Your task to perform on an android device: Open location settings Image 0: 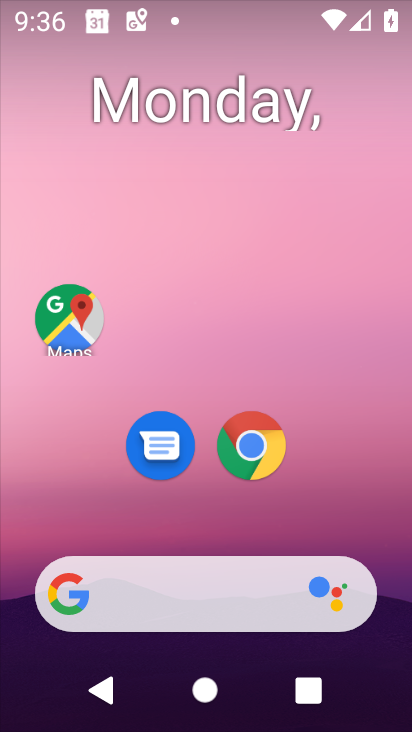
Step 0: drag from (140, 704) to (196, 169)
Your task to perform on an android device: Open location settings Image 1: 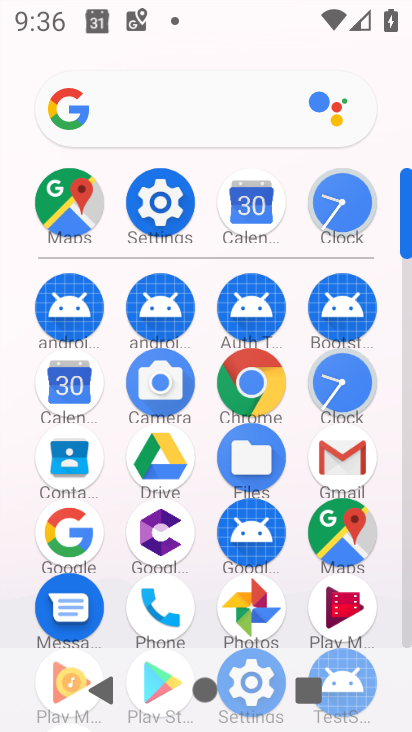
Step 1: click (173, 215)
Your task to perform on an android device: Open location settings Image 2: 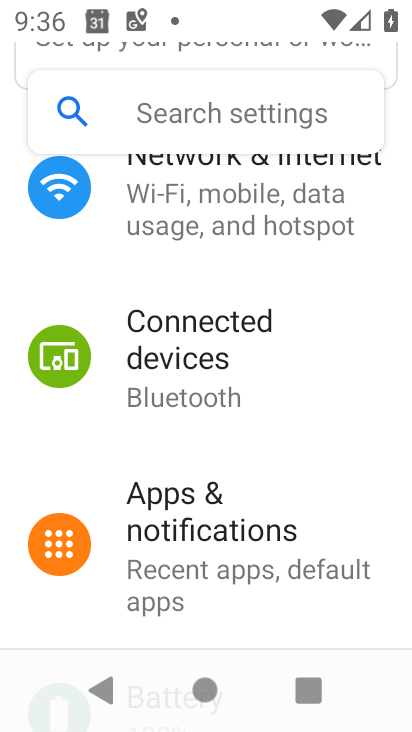
Step 2: drag from (253, 539) to (185, 156)
Your task to perform on an android device: Open location settings Image 3: 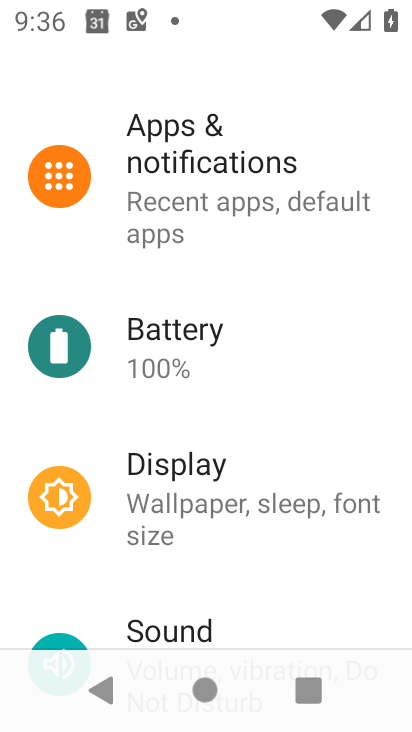
Step 3: drag from (234, 566) to (171, 151)
Your task to perform on an android device: Open location settings Image 4: 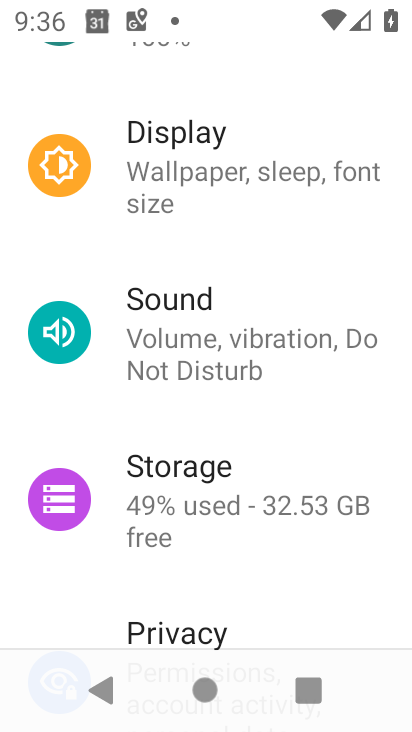
Step 4: drag from (221, 565) to (208, 169)
Your task to perform on an android device: Open location settings Image 5: 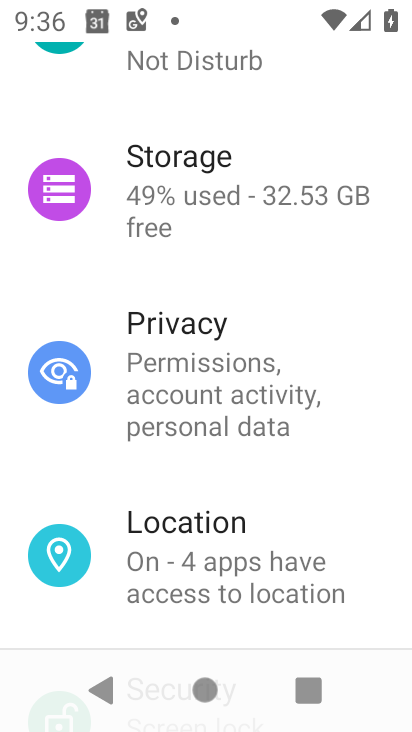
Step 5: click (206, 561)
Your task to perform on an android device: Open location settings Image 6: 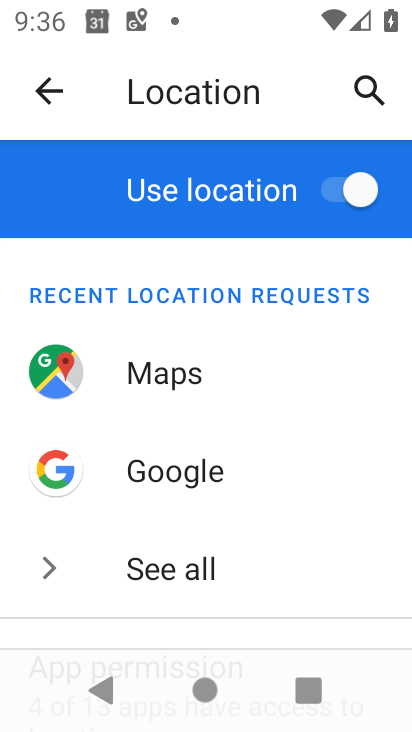
Step 6: task complete